Your task to perform on an android device: Open Google Maps and go to "Timeline" Image 0: 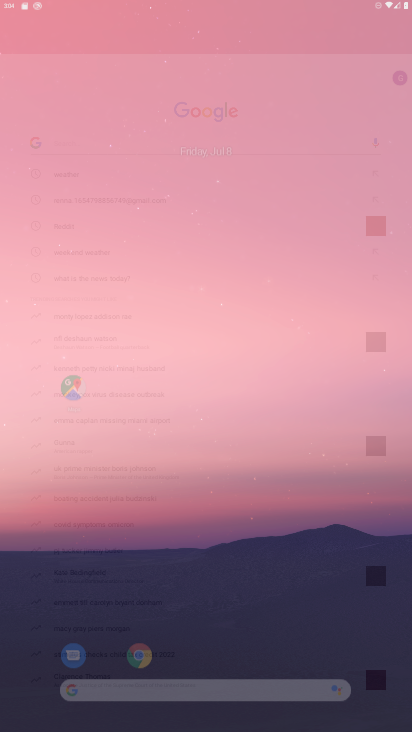
Step 0: click (194, 471)
Your task to perform on an android device: Open Google Maps and go to "Timeline" Image 1: 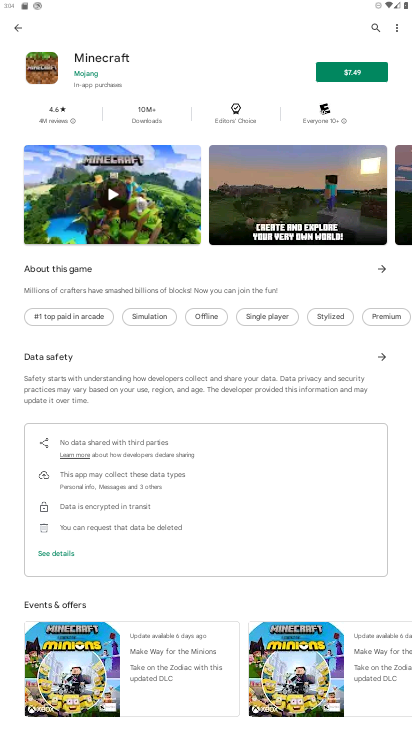
Step 1: press home button
Your task to perform on an android device: Open Google Maps and go to "Timeline" Image 2: 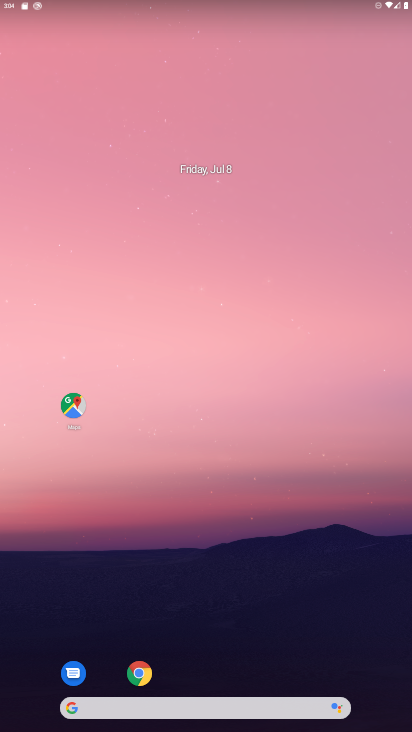
Step 2: click (73, 411)
Your task to perform on an android device: Open Google Maps and go to "Timeline" Image 3: 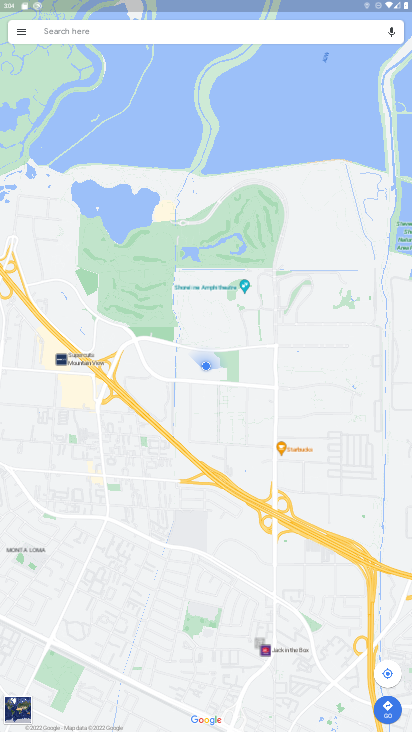
Step 3: click (17, 29)
Your task to perform on an android device: Open Google Maps and go to "Timeline" Image 4: 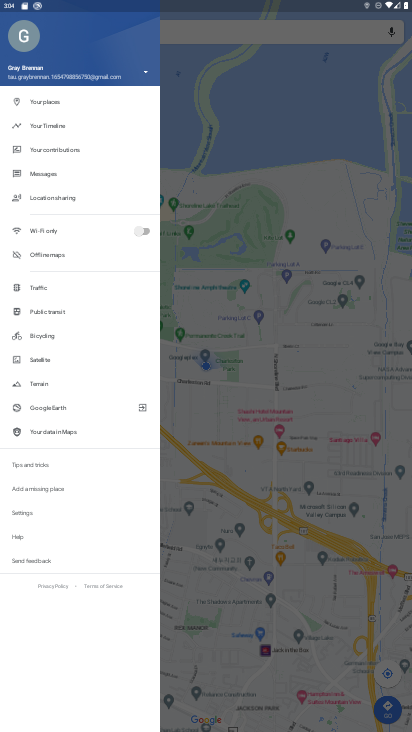
Step 4: click (34, 124)
Your task to perform on an android device: Open Google Maps and go to "Timeline" Image 5: 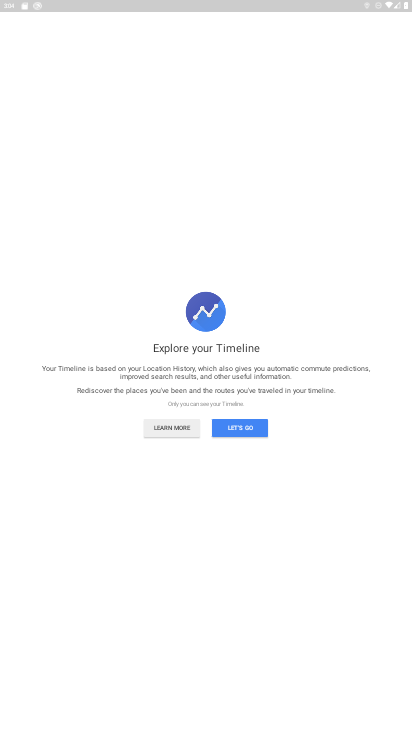
Step 5: click (262, 426)
Your task to perform on an android device: Open Google Maps and go to "Timeline" Image 6: 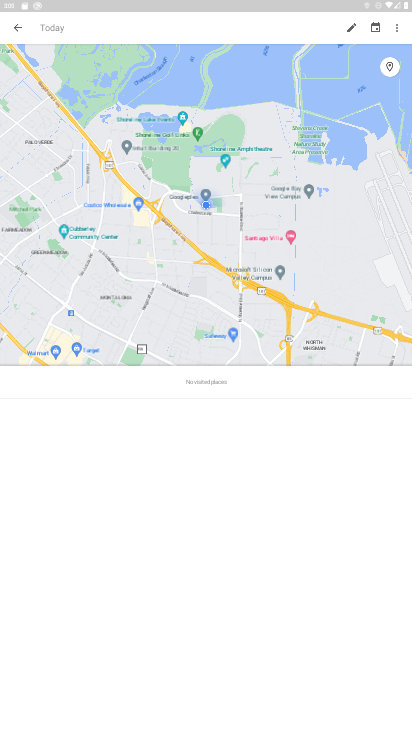
Step 6: task complete